Your task to perform on an android device: choose inbox layout in the gmail app Image 0: 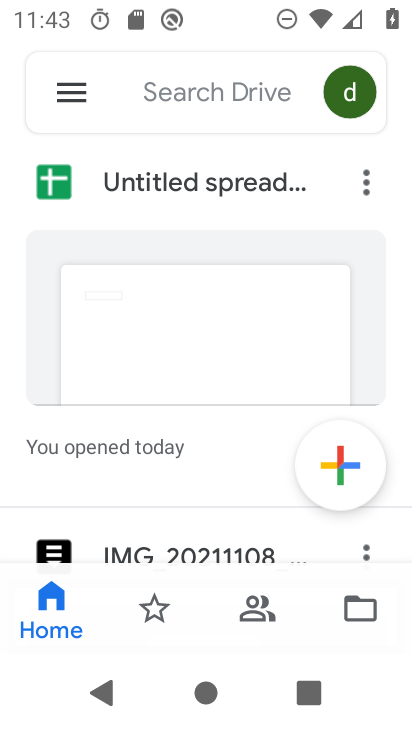
Step 0: click (243, 477)
Your task to perform on an android device: choose inbox layout in the gmail app Image 1: 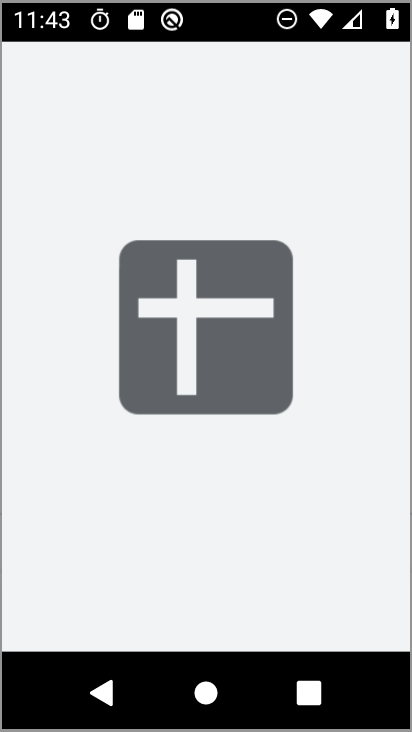
Step 1: press home button
Your task to perform on an android device: choose inbox layout in the gmail app Image 2: 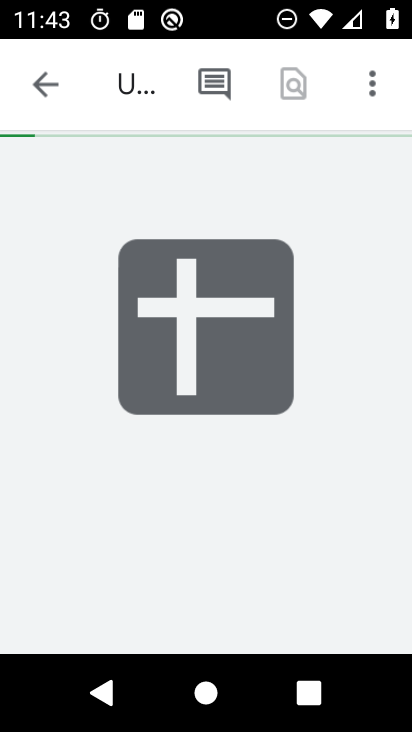
Step 2: press home button
Your task to perform on an android device: choose inbox layout in the gmail app Image 3: 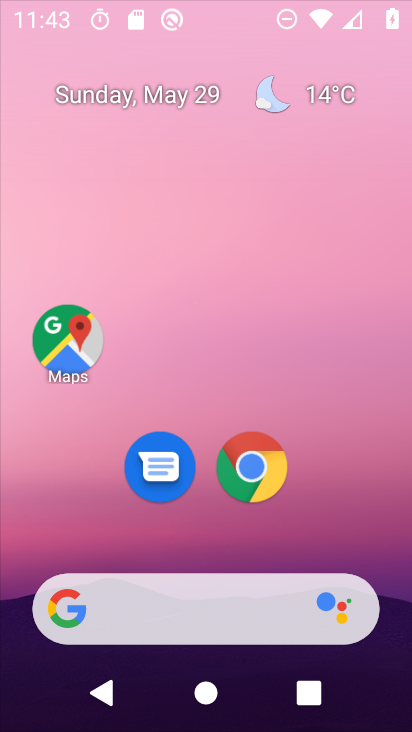
Step 3: press home button
Your task to perform on an android device: choose inbox layout in the gmail app Image 4: 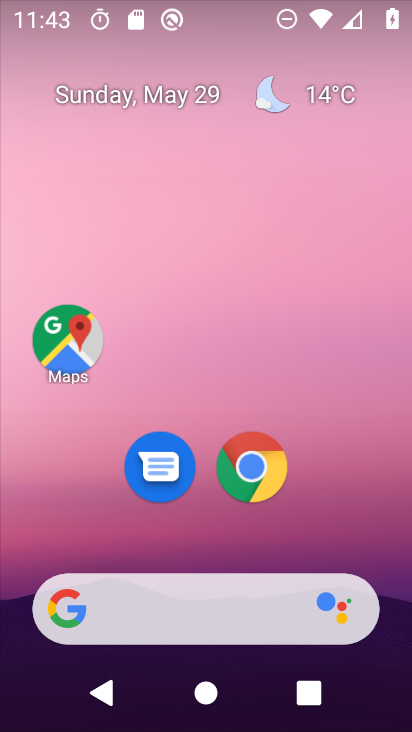
Step 4: press home button
Your task to perform on an android device: choose inbox layout in the gmail app Image 5: 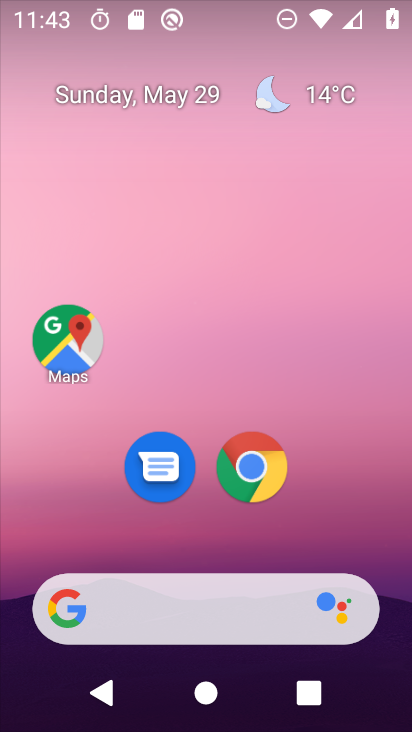
Step 5: click (261, 453)
Your task to perform on an android device: choose inbox layout in the gmail app Image 6: 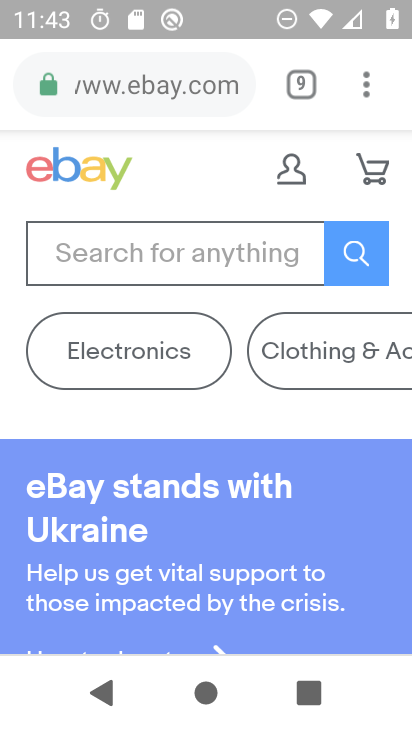
Step 6: press home button
Your task to perform on an android device: choose inbox layout in the gmail app Image 7: 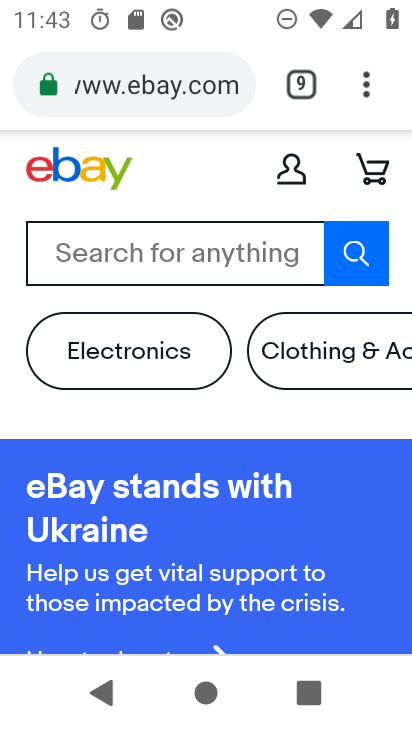
Step 7: press home button
Your task to perform on an android device: choose inbox layout in the gmail app Image 8: 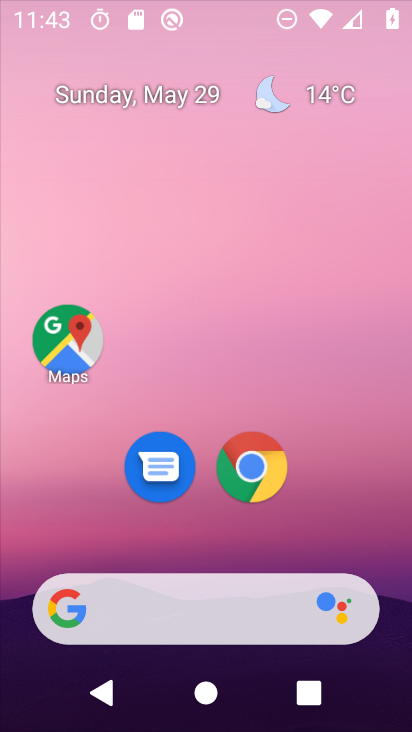
Step 8: press home button
Your task to perform on an android device: choose inbox layout in the gmail app Image 9: 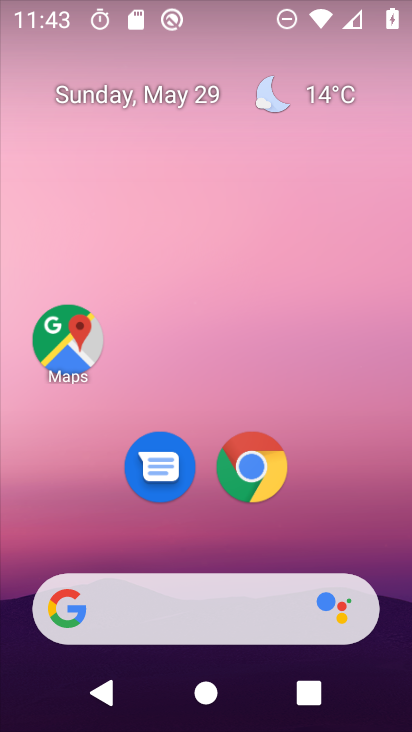
Step 9: press home button
Your task to perform on an android device: choose inbox layout in the gmail app Image 10: 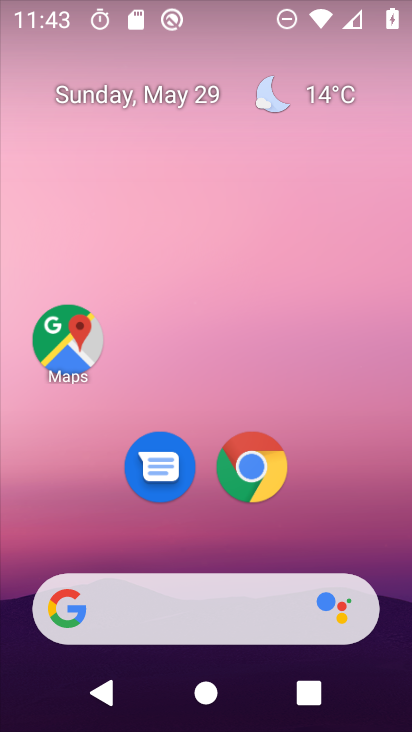
Step 10: drag from (192, 539) to (173, 167)
Your task to perform on an android device: choose inbox layout in the gmail app Image 11: 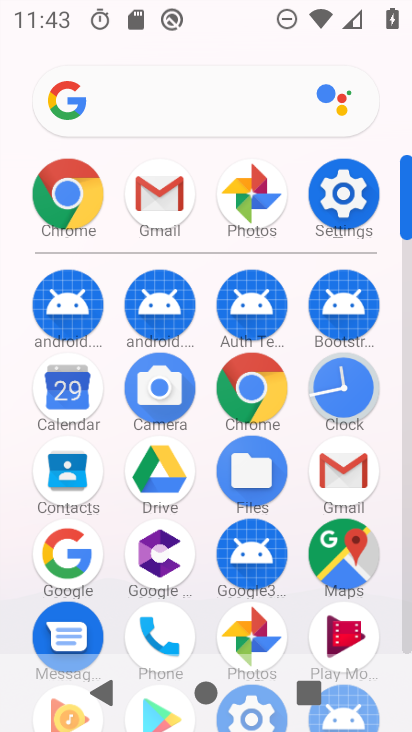
Step 11: click (170, 201)
Your task to perform on an android device: choose inbox layout in the gmail app Image 12: 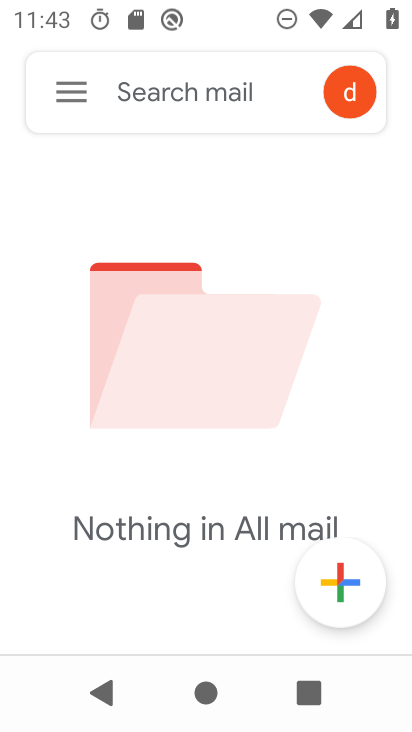
Step 12: click (62, 96)
Your task to perform on an android device: choose inbox layout in the gmail app Image 13: 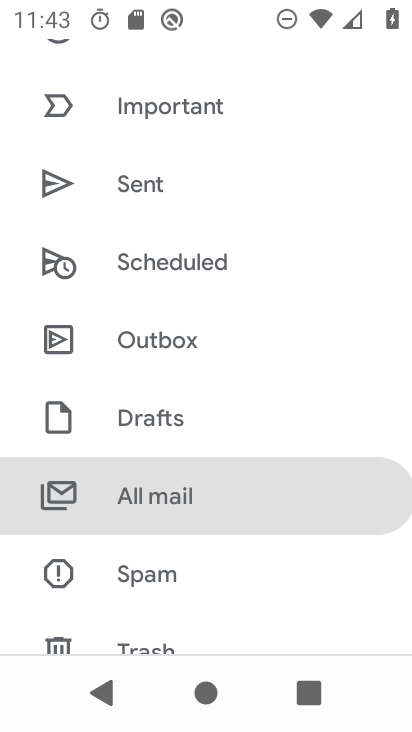
Step 13: drag from (239, 574) to (230, 206)
Your task to perform on an android device: choose inbox layout in the gmail app Image 14: 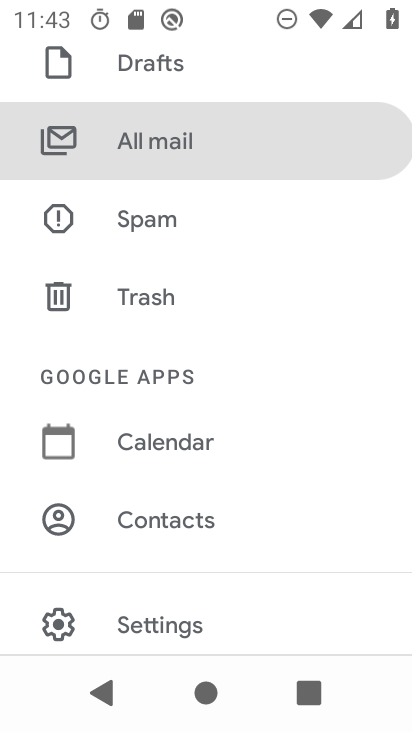
Step 14: click (182, 606)
Your task to perform on an android device: choose inbox layout in the gmail app Image 15: 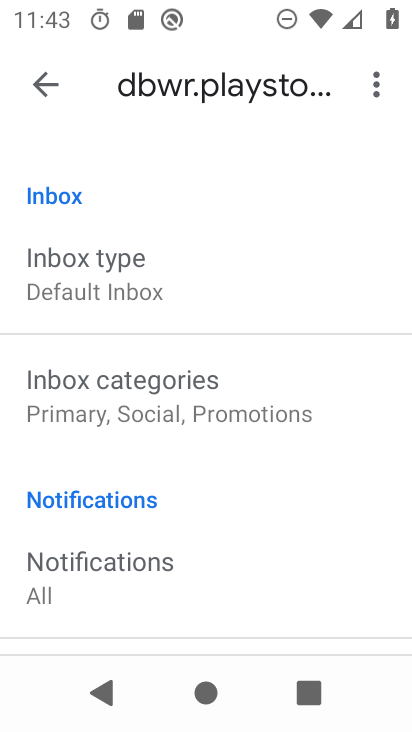
Step 15: click (175, 289)
Your task to perform on an android device: choose inbox layout in the gmail app Image 16: 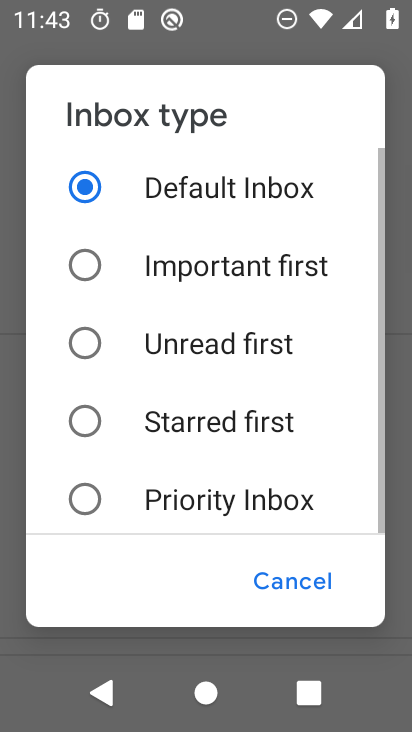
Step 16: click (199, 499)
Your task to perform on an android device: choose inbox layout in the gmail app Image 17: 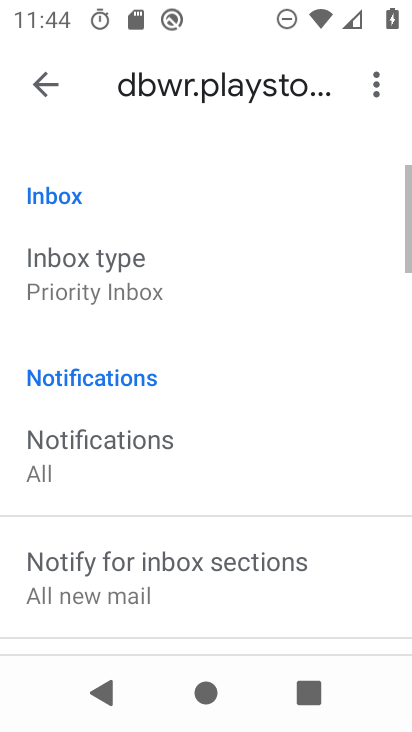
Step 17: task complete